Your task to perform on an android device: turn on location history Image 0: 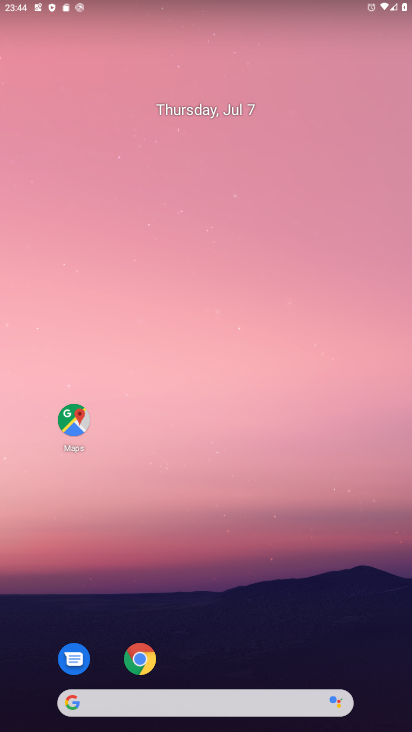
Step 0: drag from (291, 9) to (273, 490)
Your task to perform on an android device: turn on location history Image 1: 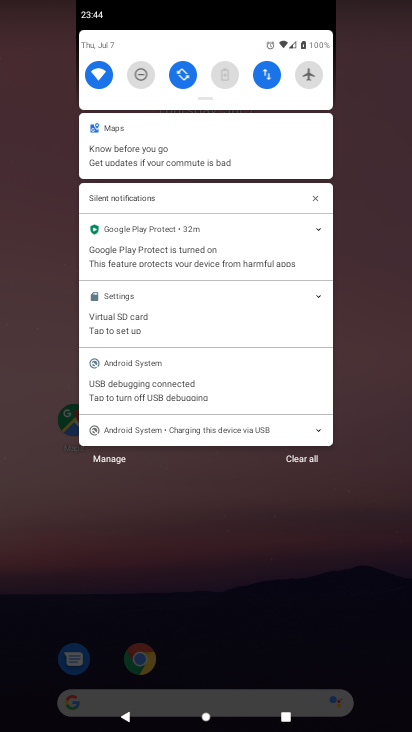
Step 1: drag from (214, 38) to (215, 601)
Your task to perform on an android device: turn on location history Image 2: 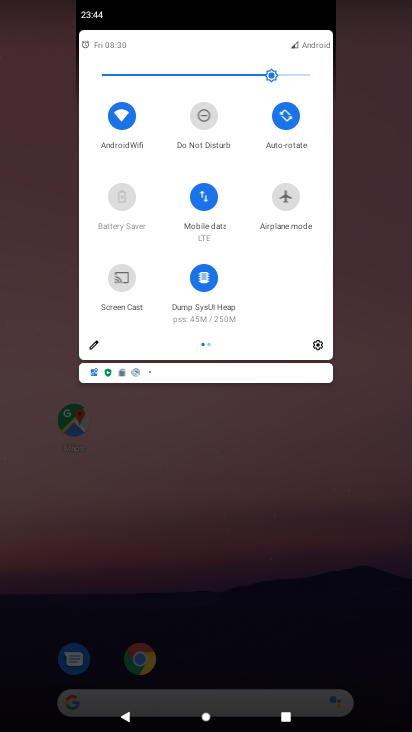
Step 2: click (315, 346)
Your task to perform on an android device: turn on location history Image 3: 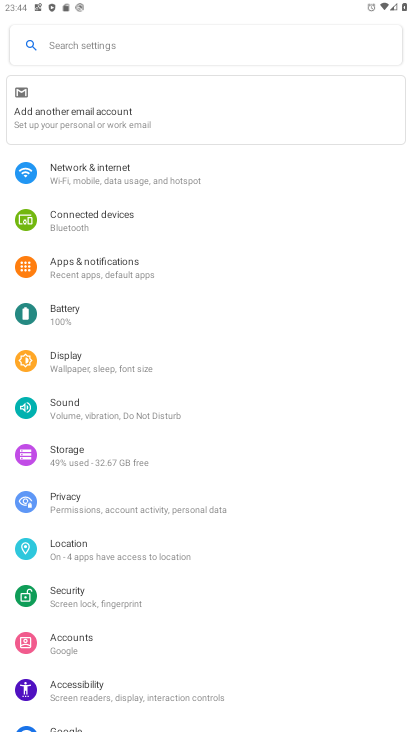
Step 3: click (131, 549)
Your task to perform on an android device: turn on location history Image 4: 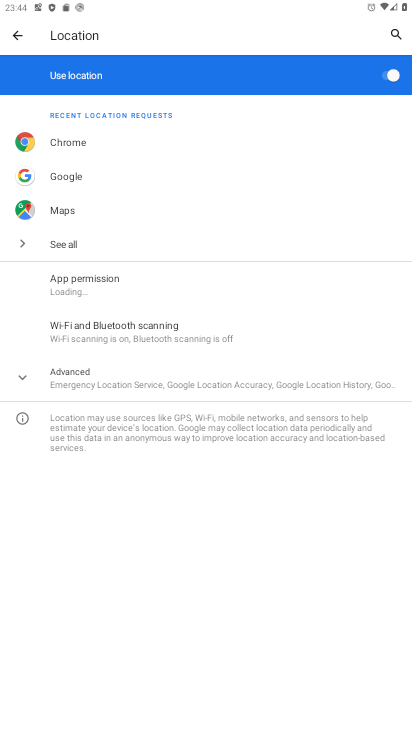
Step 4: click (163, 378)
Your task to perform on an android device: turn on location history Image 5: 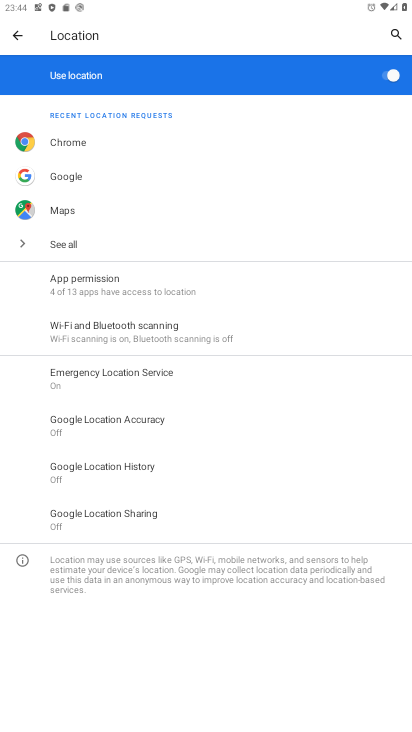
Step 5: click (155, 462)
Your task to perform on an android device: turn on location history Image 6: 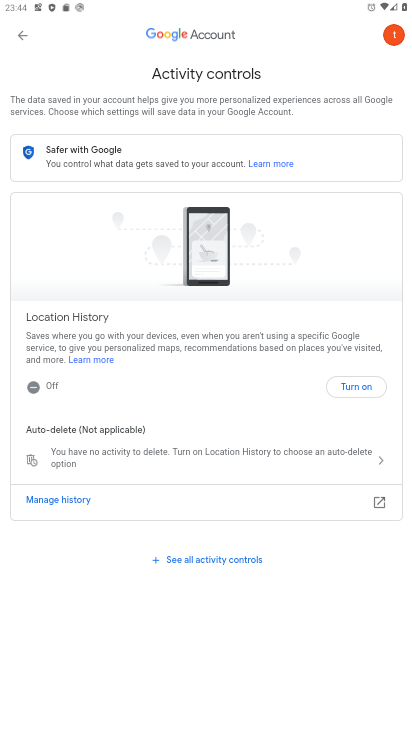
Step 6: click (354, 390)
Your task to perform on an android device: turn on location history Image 7: 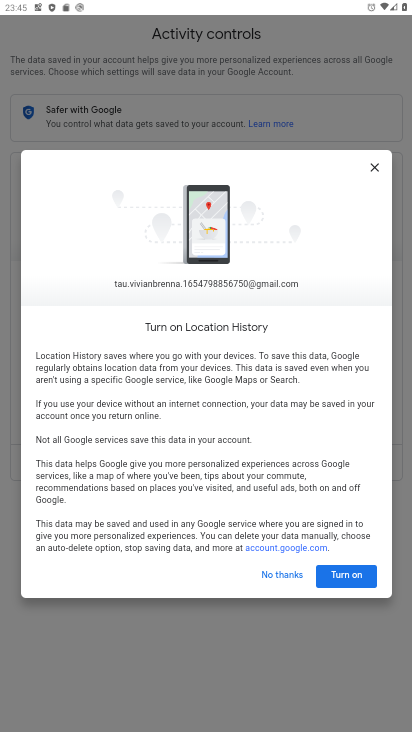
Step 7: click (358, 577)
Your task to perform on an android device: turn on location history Image 8: 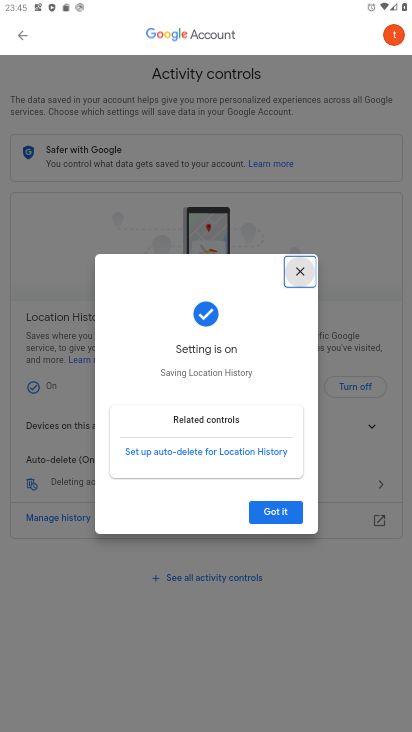
Step 8: click (290, 512)
Your task to perform on an android device: turn on location history Image 9: 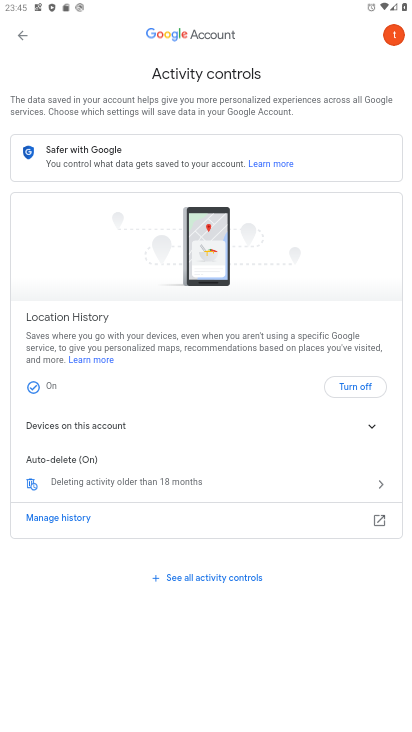
Step 9: task complete